Your task to perform on an android device: remove spam from my inbox in the gmail app Image 0: 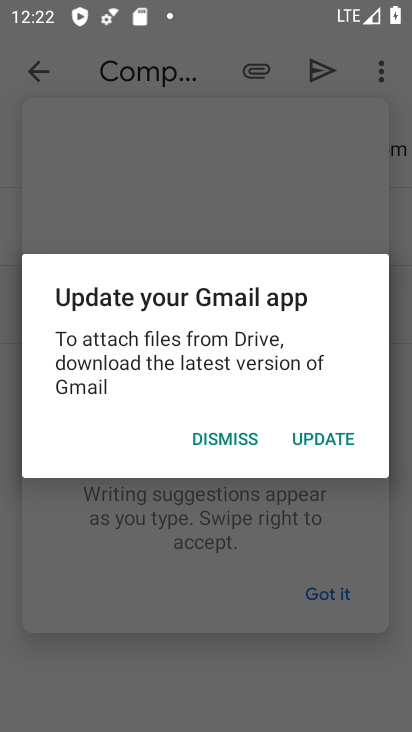
Step 0: press home button
Your task to perform on an android device: remove spam from my inbox in the gmail app Image 1: 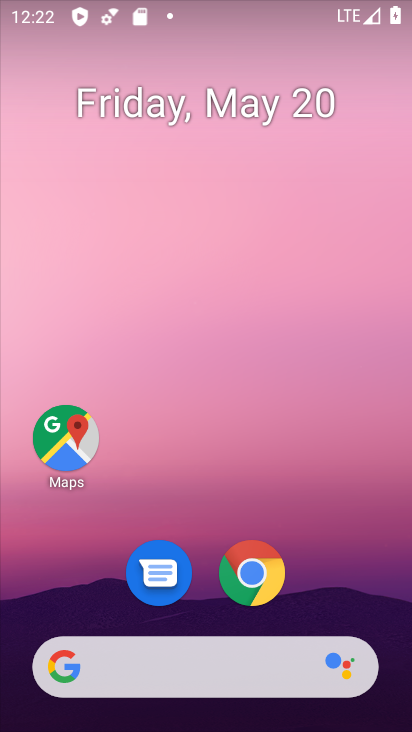
Step 1: drag from (206, 607) to (247, 85)
Your task to perform on an android device: remove spam from my inbox in the gmail app Image 2: 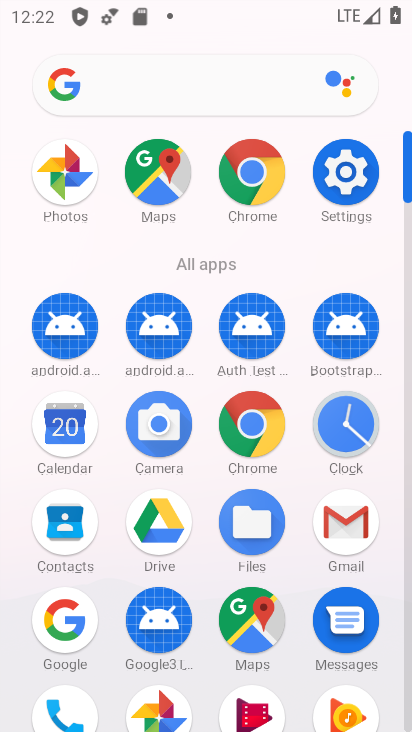
Step 2: click (324, 527)
Your task to perform on an android device: remove spam from my inbox in the gmail app Image 3: 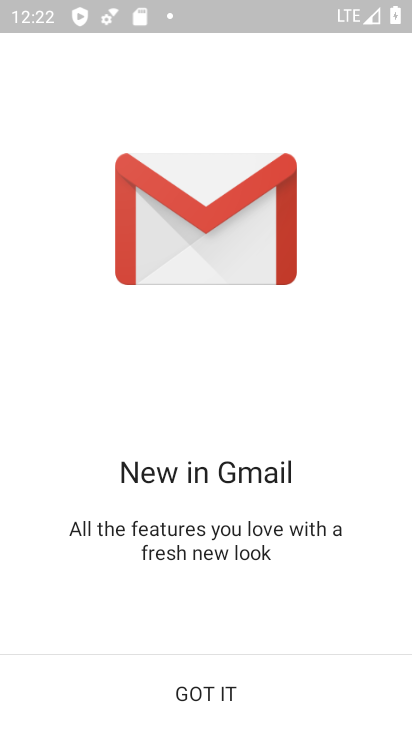
Step 3: click (231, 681)
Your task to perform on an android device: remove spam from my inbox in the gmail app Image 4: 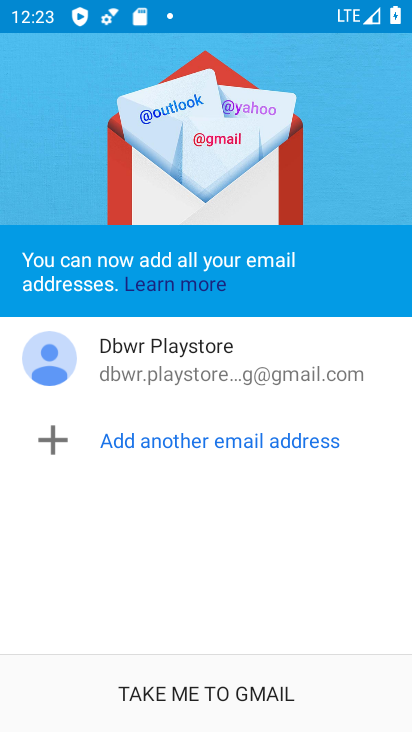
Step 4: click (199, 697)
Your task to perform on an android device: remove spam from my inbox in the gmail app Image 5: 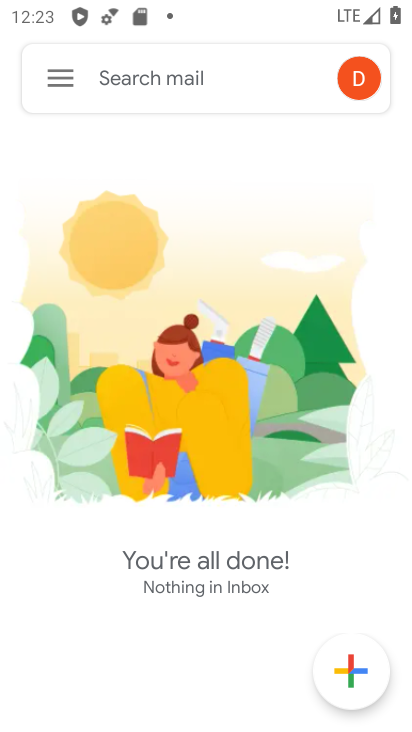
Step 5: click (46, 78)
Your task to perform on an android device: remove spam from my inbox in the gmail app Image 6: 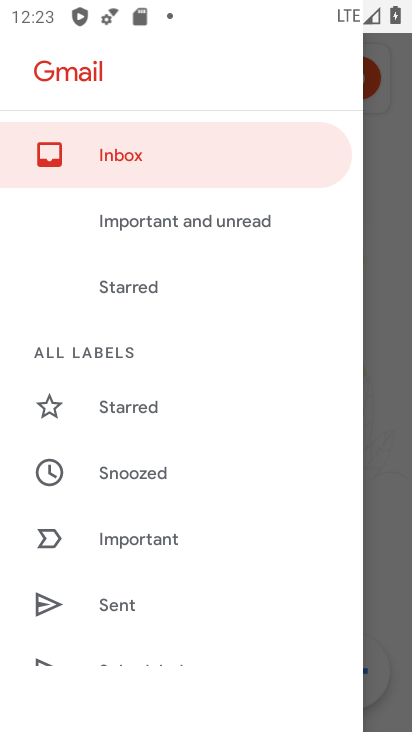
Step 6: drag from (105, 470) to (161, 137)
Your task to perform on an android device: remove spam from my inbox in the gmail app Image 7: 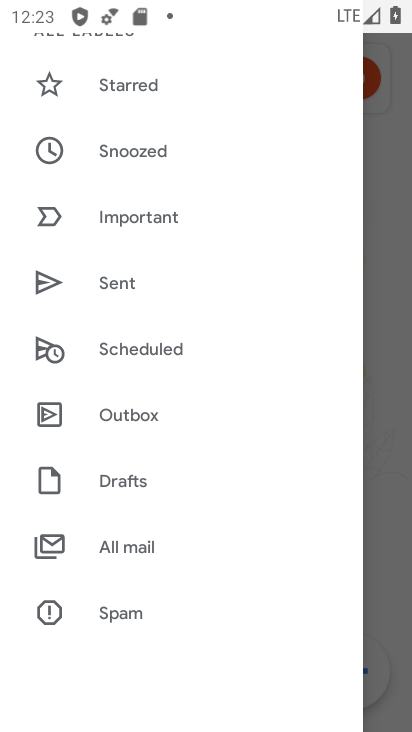
Step 7: click (116, 605)
Your task to perform on an android device: remove spam from my inbox in the gmail app Image 8: 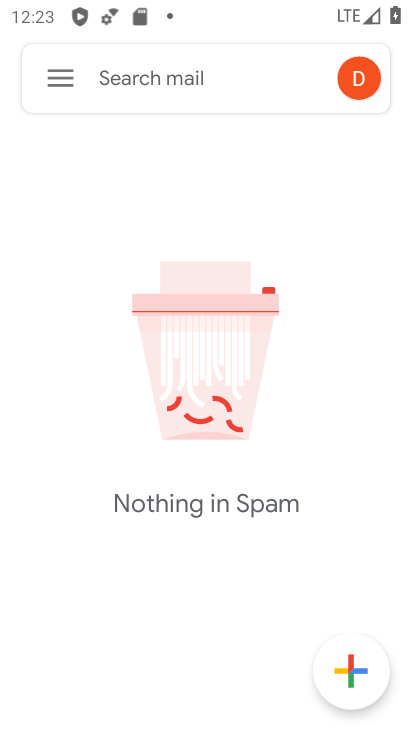
Step 8: task complete